Your task to perform on an android device: What's the weather going to be tomorrow? Image 0: 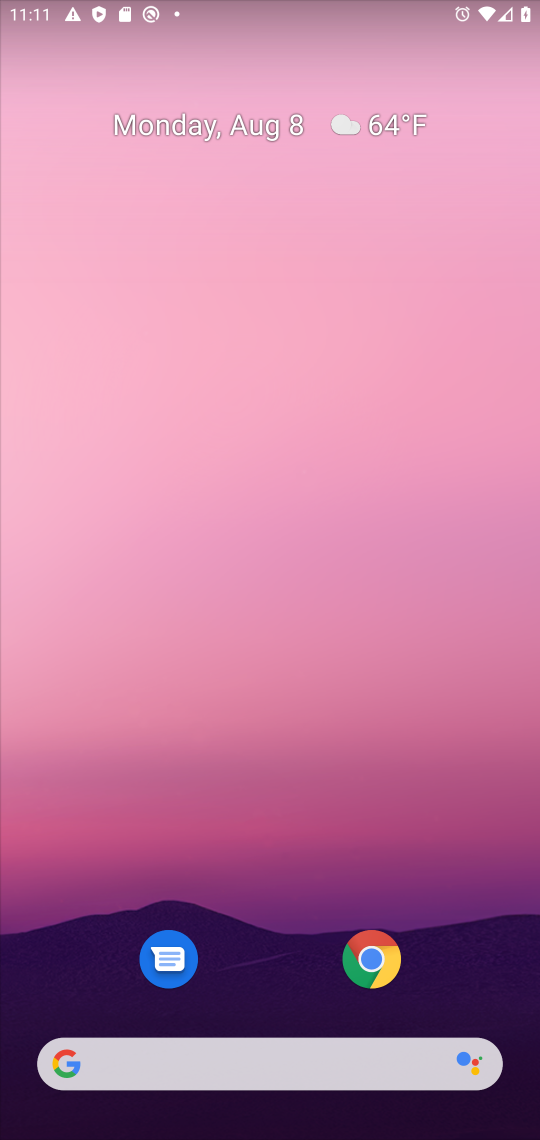
Step 0: drag from (484, 992) to (454, 390)
Your task to perform on an android device: What's the weather going to be tomorrow? Image 1: 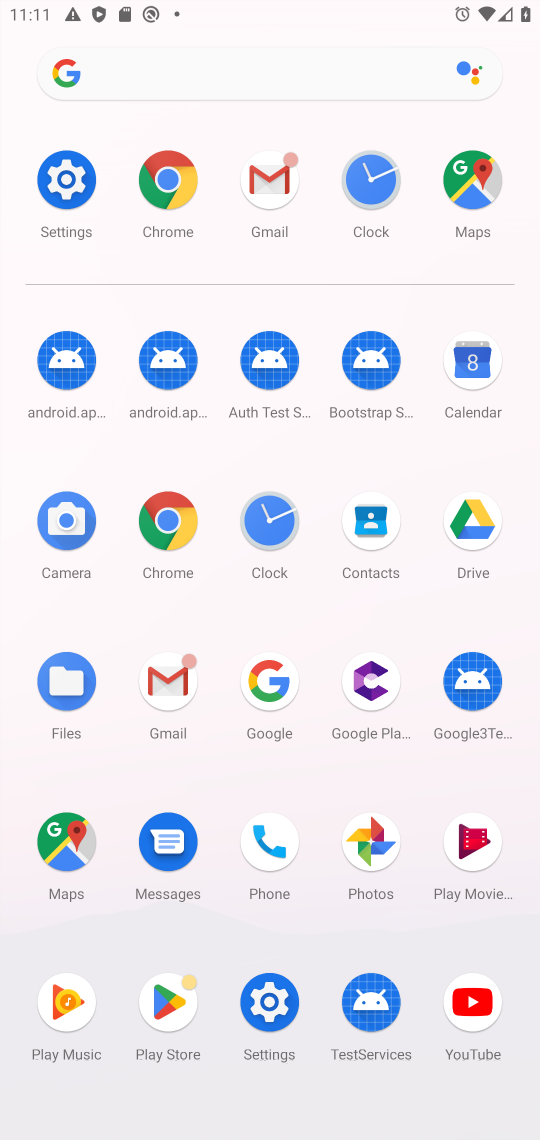
Step 1: click (171, 170)
Your task to perform on an android device: What's the weather going to be tomorrow? Image 2: 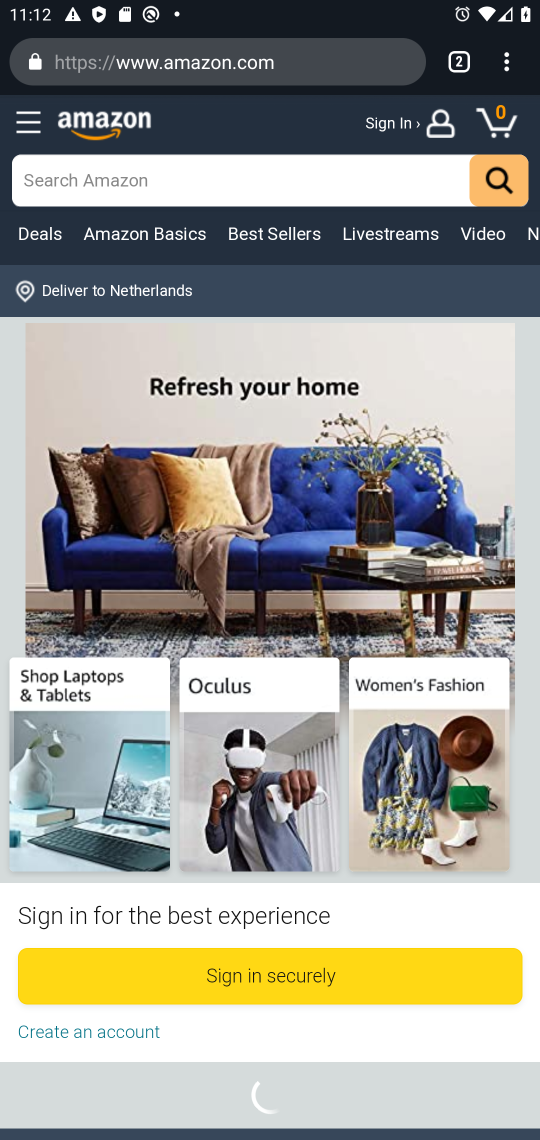
Step 2: click (210, 46)
Your task to perform on an android device: What's the weather going to be tomorrow? Image 3: 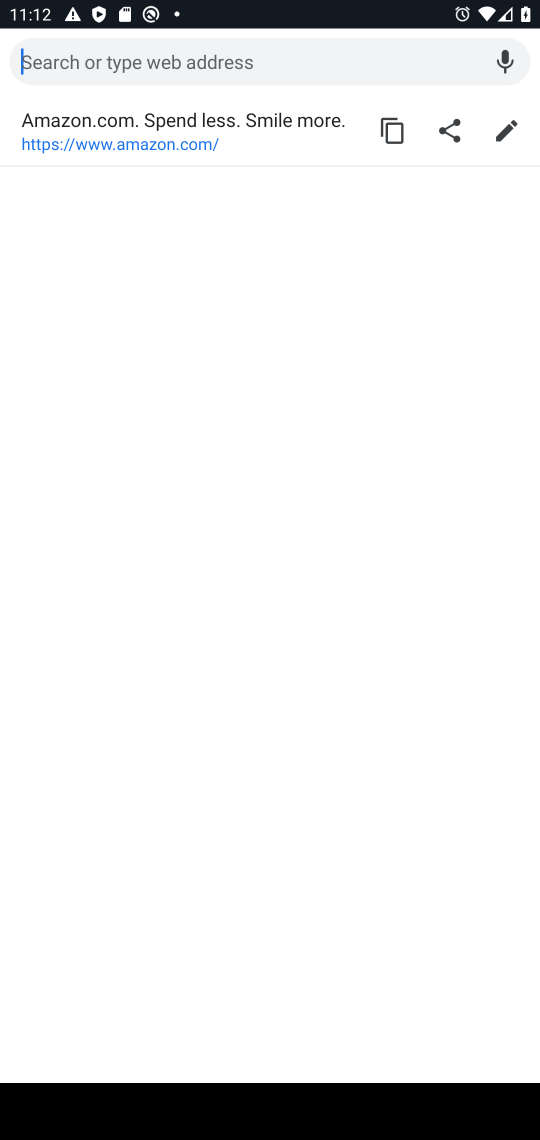
Step 3: type "What's the weather going to be tomorrow?"
Your task to perform on an android device: What's the weather going to be tomorrow? Image 4: 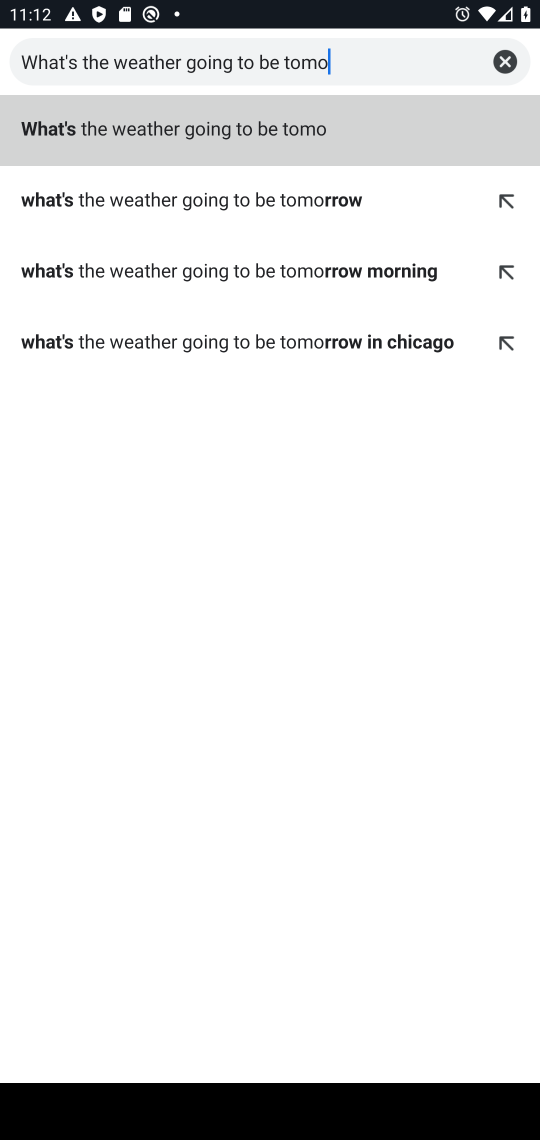
Step 4: click (357, 208)
Your task to perform on an android device: What's the weather going to be tomorrow? Image 5: 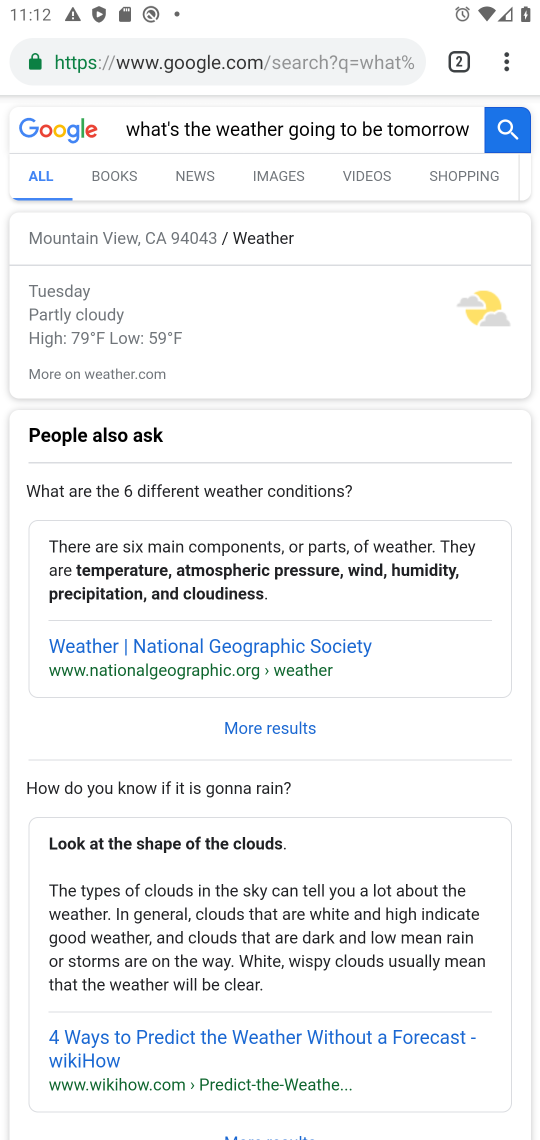
Step 5: task complete